Your task to perform on an android device: Show me recent news Image 0: 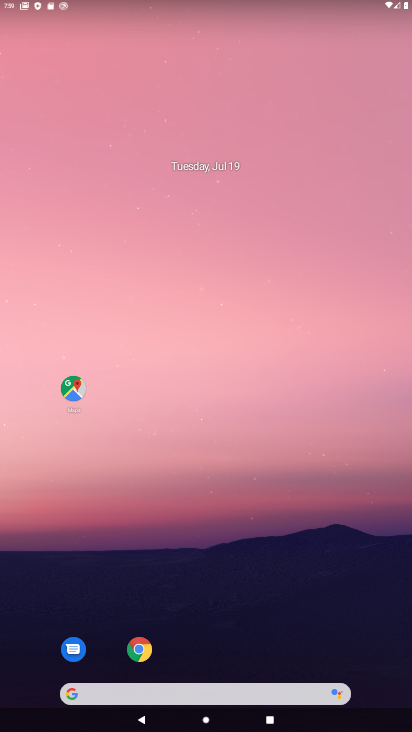
Step 0: drag from (193, 652) to (203, 146)
Your task to perform on an android device: Show me recent news Image 1: 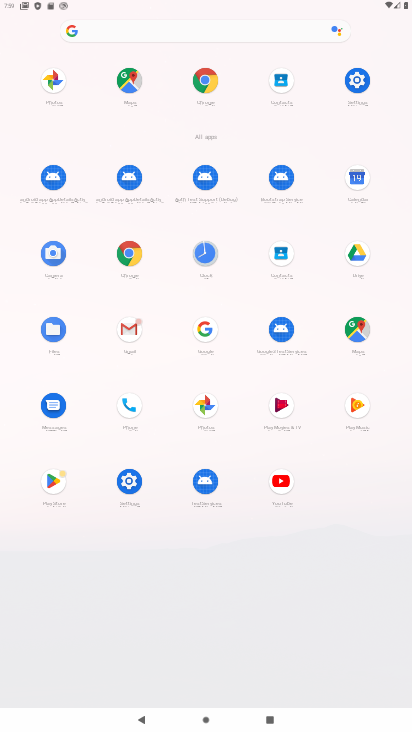
Step 1: click (202, 343)
Your task to perform on an android device: Show me recent news Image 2: 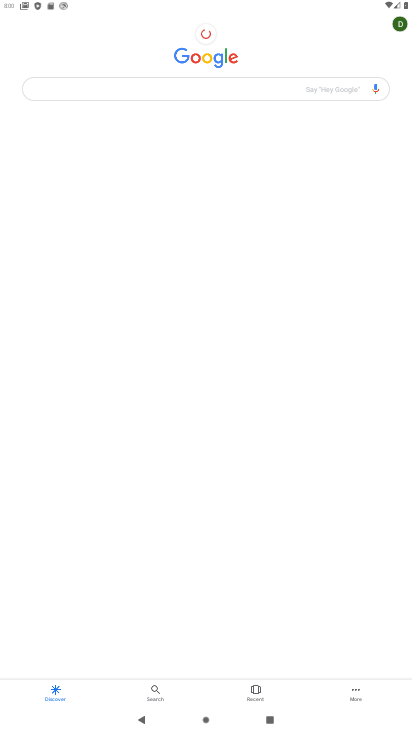
Step 2: click (170, 103)
Your task to perform on an android device: Show me recent news Image 3: 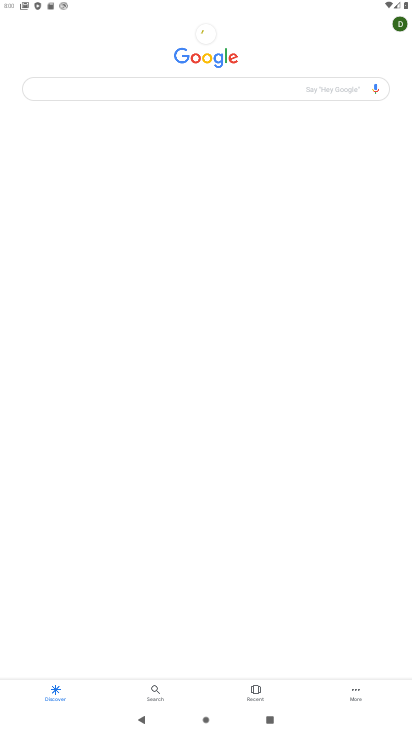
Step 3: click (152, 89)
Your task to perform on an android device: Show me recent news Image 4: 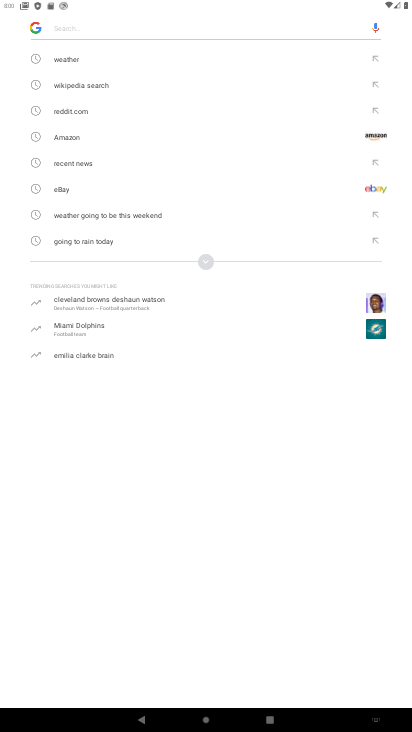
Step 4: type "news"
Your task to perform on an android device: Show me recent news Image 5: 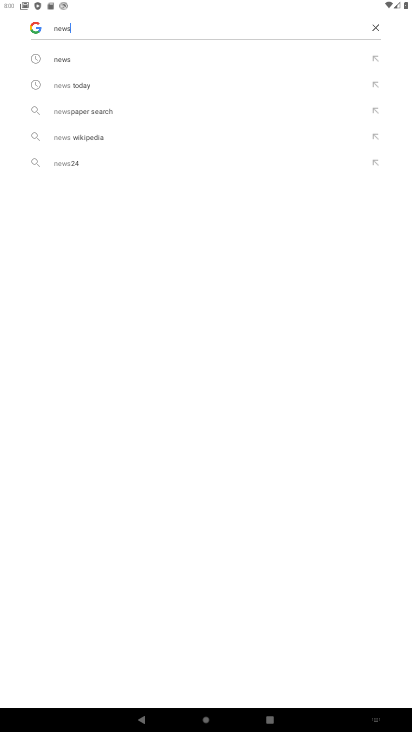
Step 5: click (76, 61)
Your task to perform on an android device: Show me recent news Image 6: 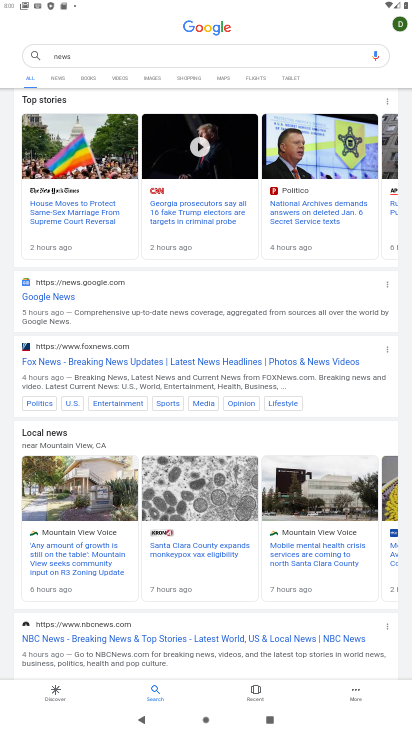
Step 6: click (61, 80)
Your task to perform on an android device: Show me recent news Image 7: 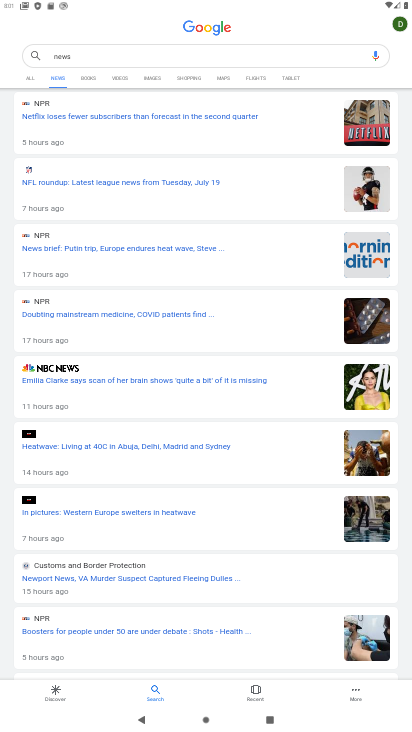
Step 7: task complete